Your task to perform on an android device: Turn off the flashlight Image 0: 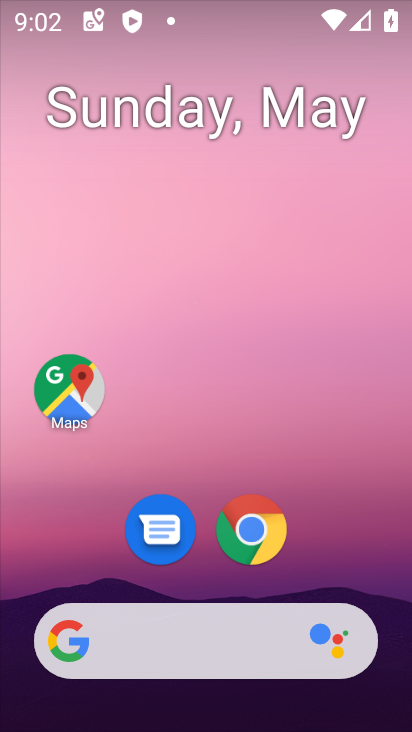
Step 0: drag from (349, 550) to (219, 18)
Your task to perform on an android device: Turn off the flashlight Image 1: 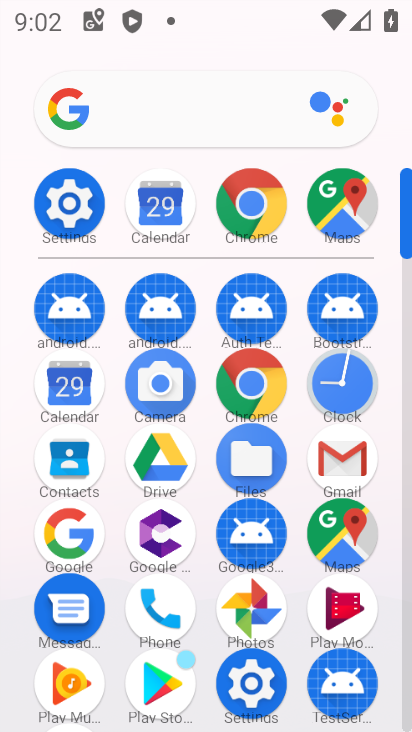
Step 1: click (65, 225)
Your task to perform on an android device: Turn off the flashlight Image 2: 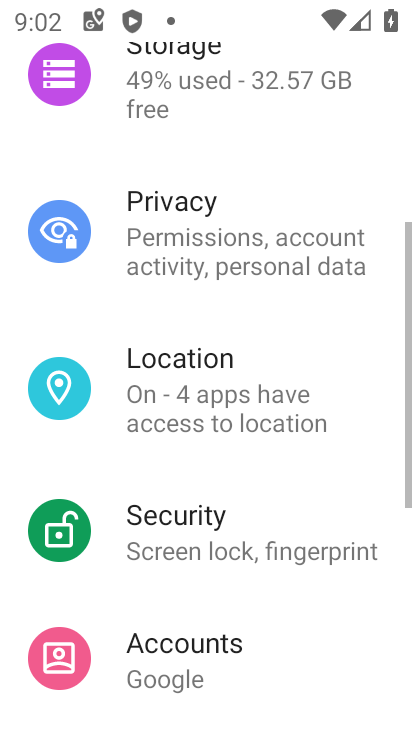
Step 2: task complete